Your task to perform on an android device: Open Youtube and go to the subscriptions tab Image 0: 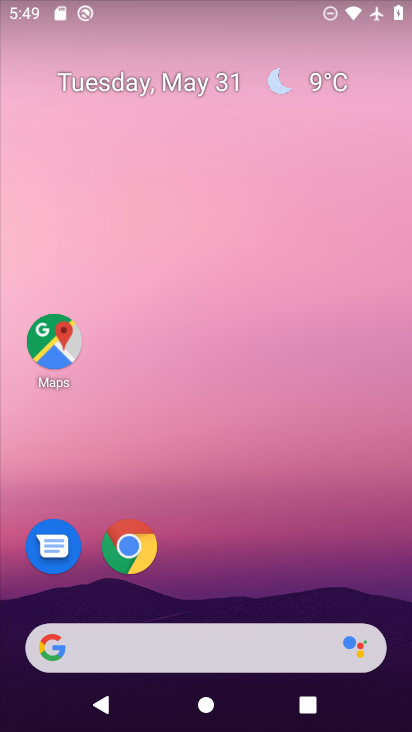
Step 0: drag from (261, 557) to (166, 44)
Your task to perform on an android device: Open Youtube and go to the subscriptions tab Image 1: 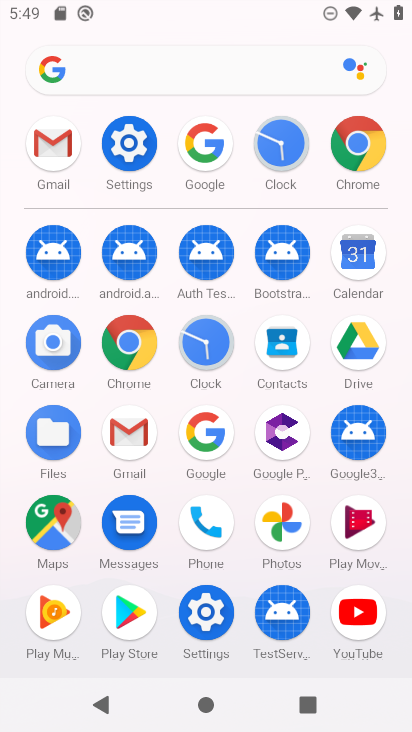
Step 1: click (347, 629)
Your task to perform on an android device: Open Youtube and go to the subscriptions tab Image 2: 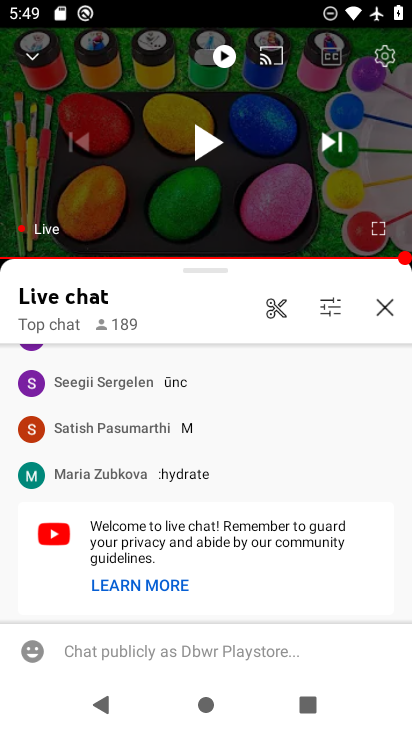
Step 2: press back button
Your task to perform on an android device: Open Youtube and go to the subscriptions tab Image 3: 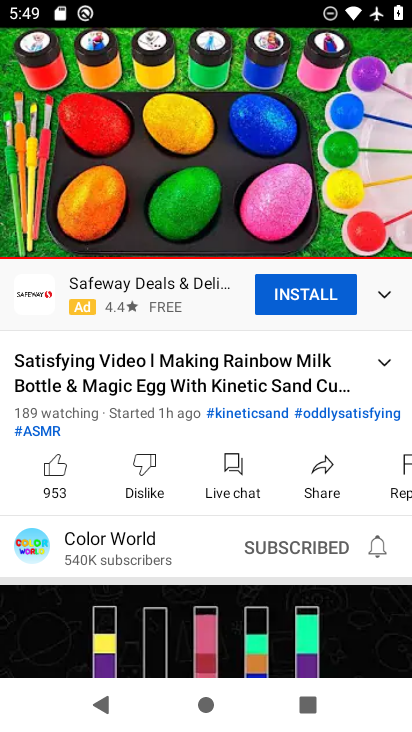
Step 3: press back button
Your task to perform on an android device: Open Youtube and go to the subscriptions tab Image 4: 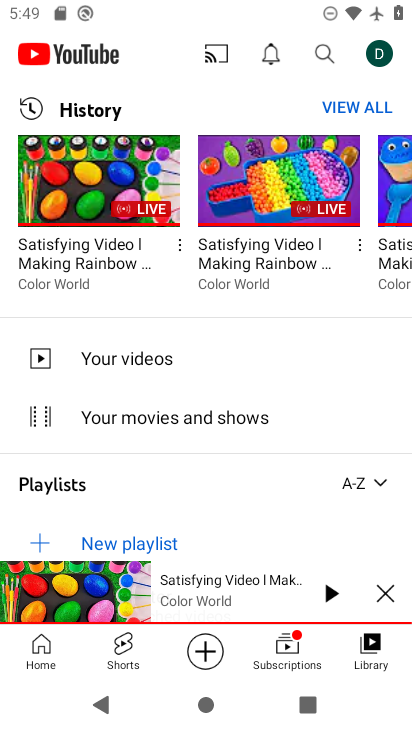
Step 4: click (280, 638)
Your task to perform on an android device: Open Youtube and go to the subscriptions tab Image 5: 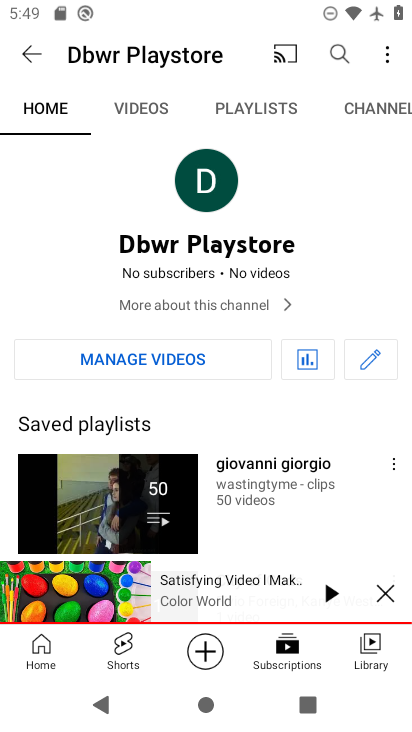
Step 5: task complete